Your task to perform on an android device: change the clock display to analog Image 0: 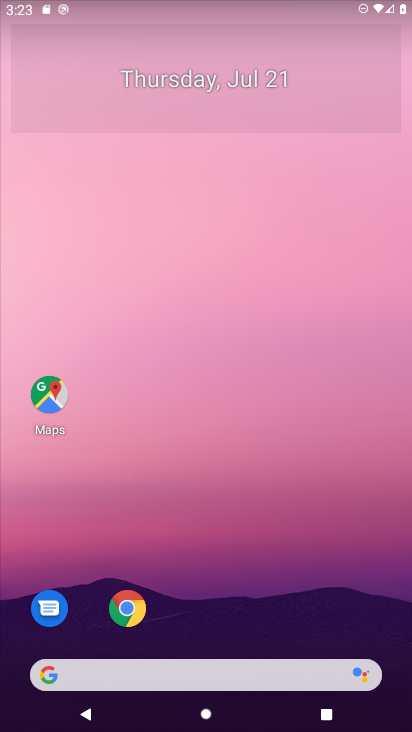
Step 0: drag from (222, 602) to (222, 301)
Your task to perform on an android device: change the clock display to analog Image 1: 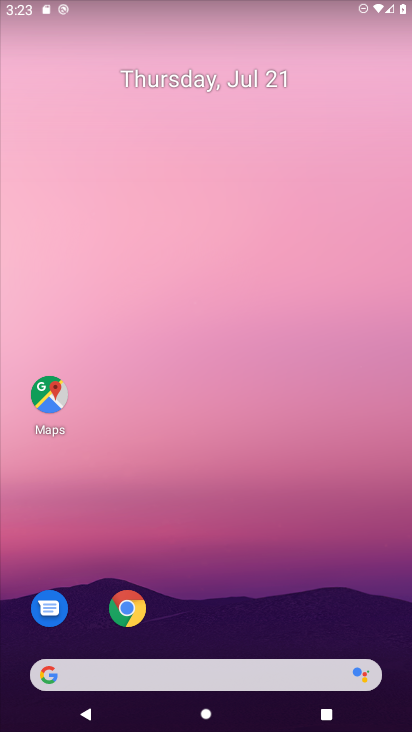
Step 1: drag from (219, 603) to (173, 128)
Your task to perform on an android device: change the clock display to analog Image 2: 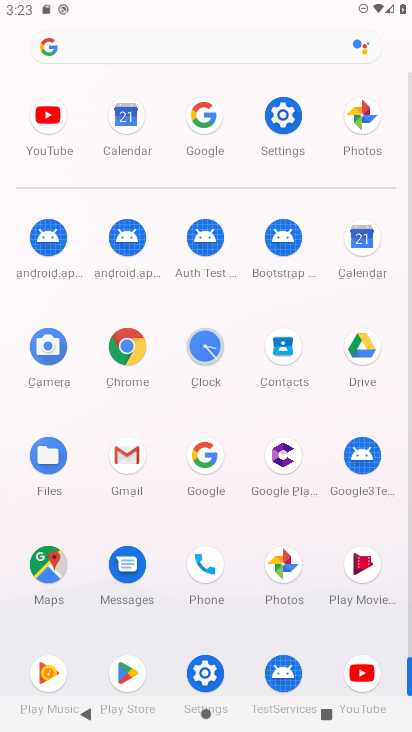
Step 2: click (191, 359)
Your task to perform on an android device: change the clock display to analog Image 3: 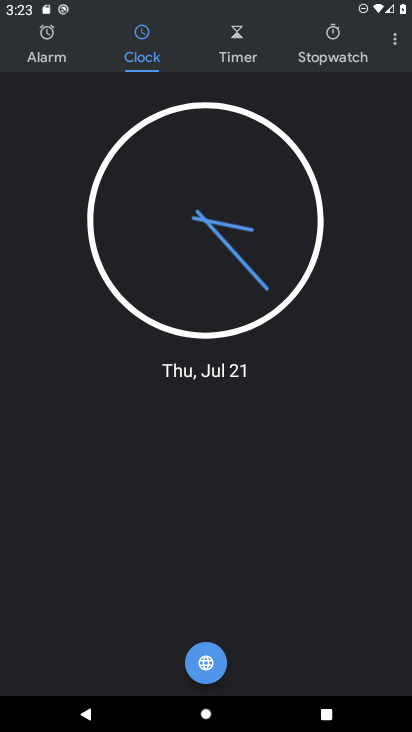
Step 3: click (396, 45)
Your task to perform on an android device: change the clock display to analog Image 4: 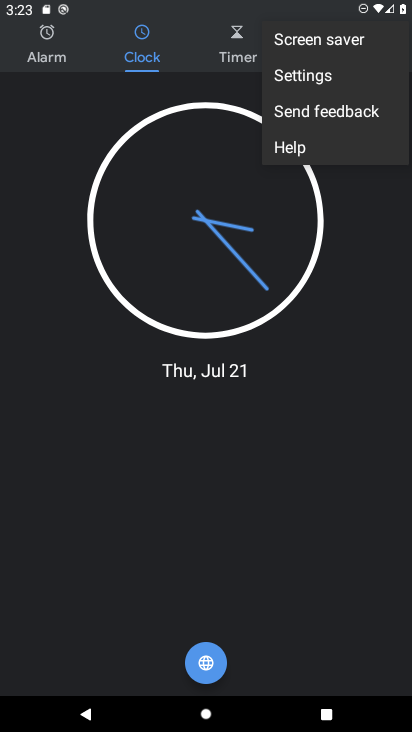
Step 4: click (350, 74)
Your task to perform on an android device: change the clock display to analog Image 5: 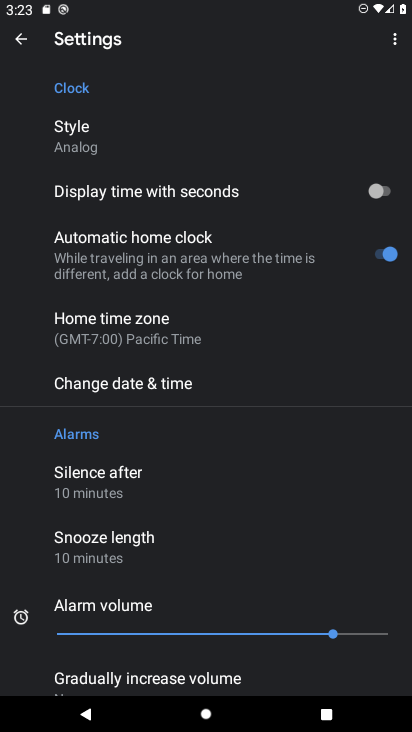
Step 5: click (90, 126)
Your task to perform on an android device: change the clock display to analog Image 6: 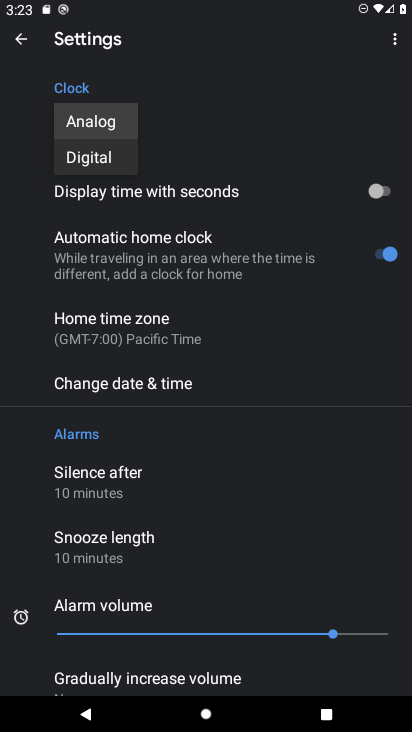
Step 6: task complete